Your task to perform on an android device: snooze an email in the gmail app Image 0: 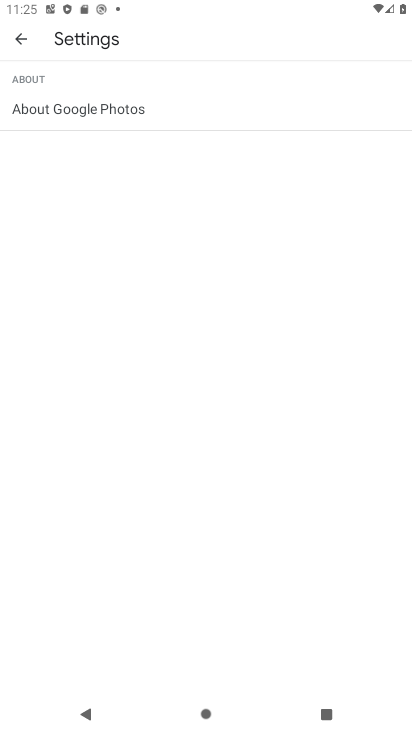
Step 0: press home button
Your task to perform on an android device: snooze an email in the gmail app Image 1: 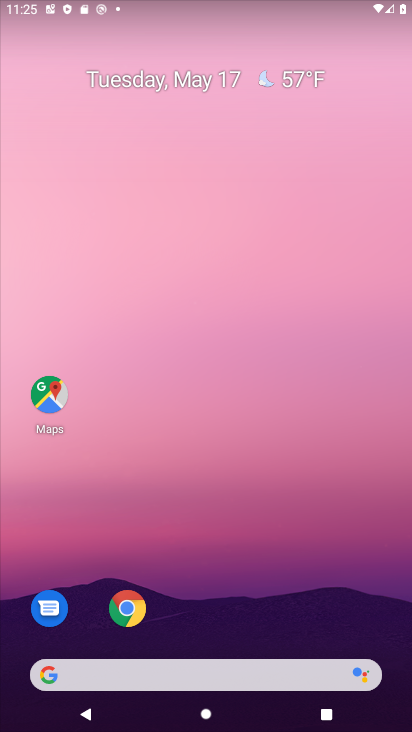
Step 1: drag from (226, 579) to (315, 30)
Your task to perform on an android device: snooze an email in the gmail app Image 2: 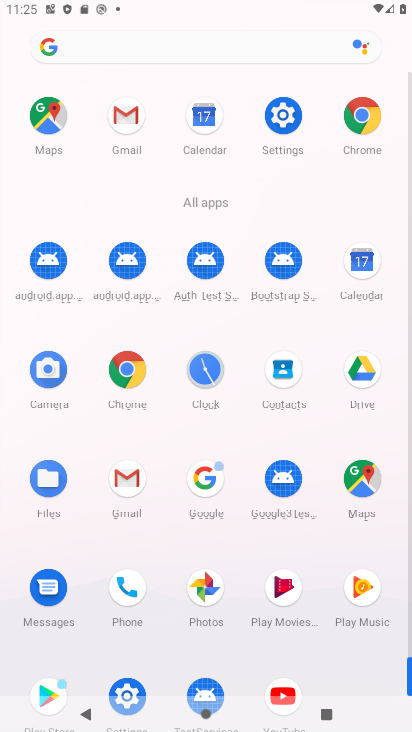
Step 2: click (125, 496)
Your task to perform on an android device: snooze an email in the gmail app Image 3: 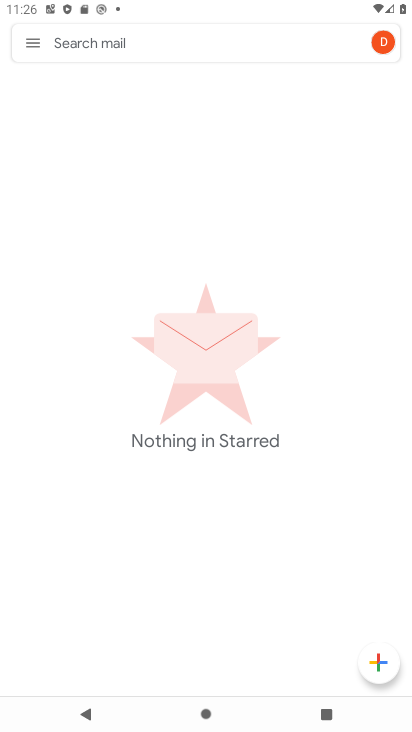
Step 3: click (25, 41)
Your task to perform on an android device: snooze an email in the gmail app Image 4: 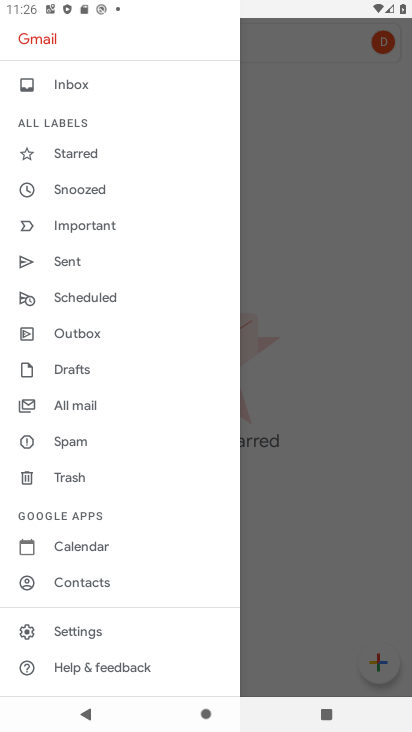
Step 4: click (83, 405)
Your task to perform on an android device: snooze an email in the gmail app Image 5: 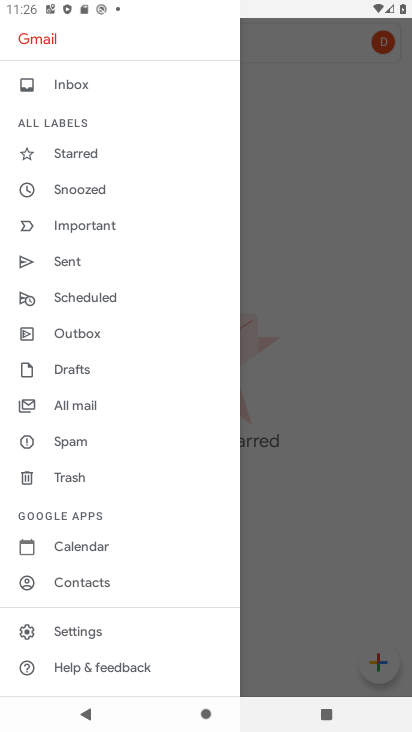
Step 5: click (89, 400)
Your task to perform on an android device: snooze an email in the gmail app Image 6: 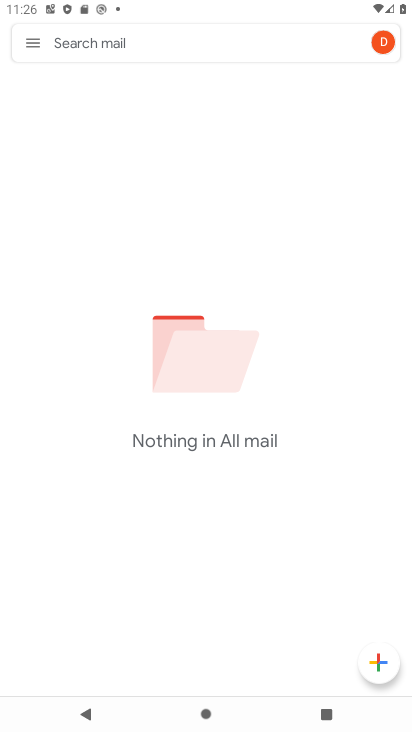
Step 6: task complete